Your task to perform on an android device: Set the phone to "Do not disturb". Image 0: 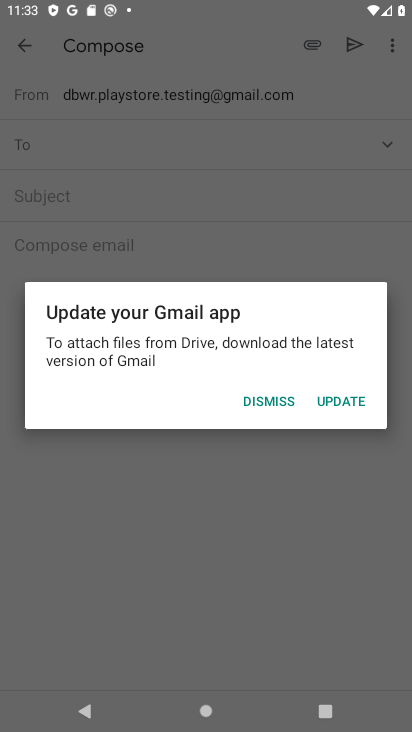
Step 0: press home button
Your task to perform on an android device: Set the phone to "Do not disturb". Image 1: 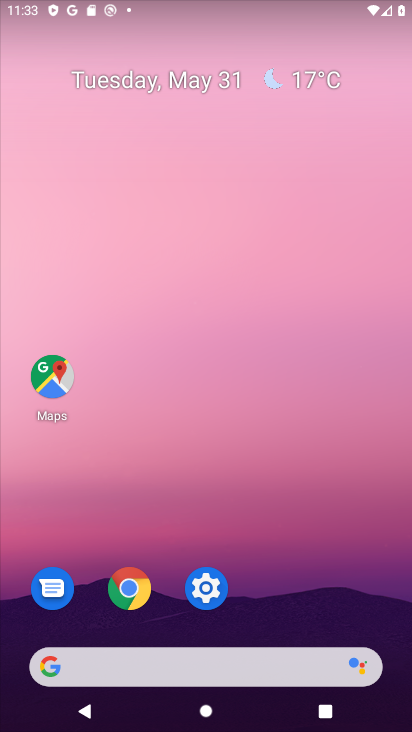
Step 1: click (195, 587)
Your task to perform on an android device: Set the phone to "Do not disturb". Image 2: 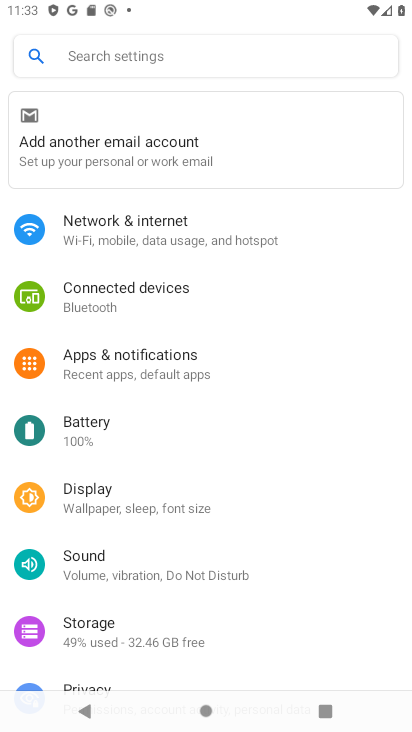
Step 2: click (106, 51)
Your task to perform on an android device: Set the phone to "Do not disturb". Image 3: 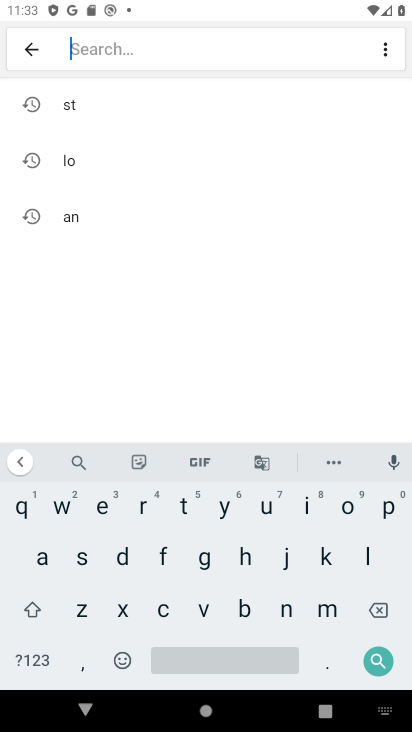
Step 3: click (117, 566)
Your task to perform on an android device: Set the phone to "Do not disturb". Image 4: 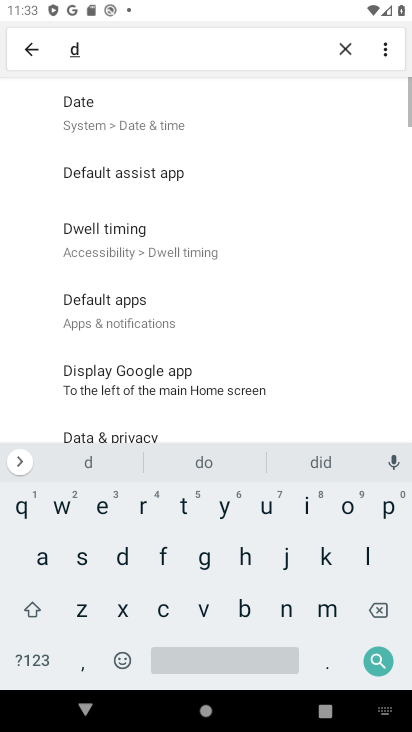
Step 4: click (294, 609)
Your task to perform on an android device: Set the phone to "Do not disturb". Image 5: 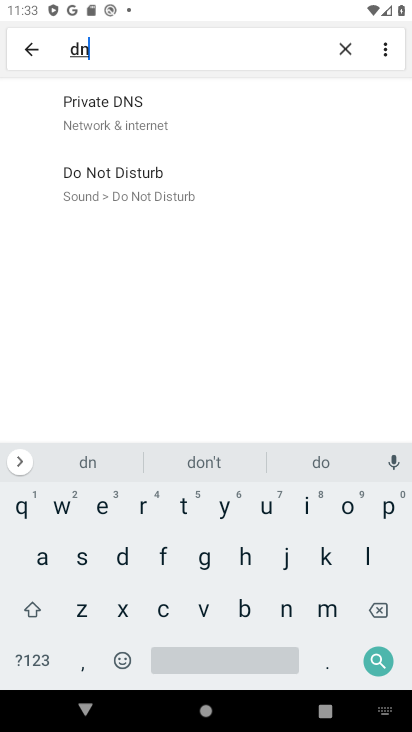
Step 5: click (144, 170)
Your task to perform on an android device: Set the phone to "Do not disturb". Image 6: 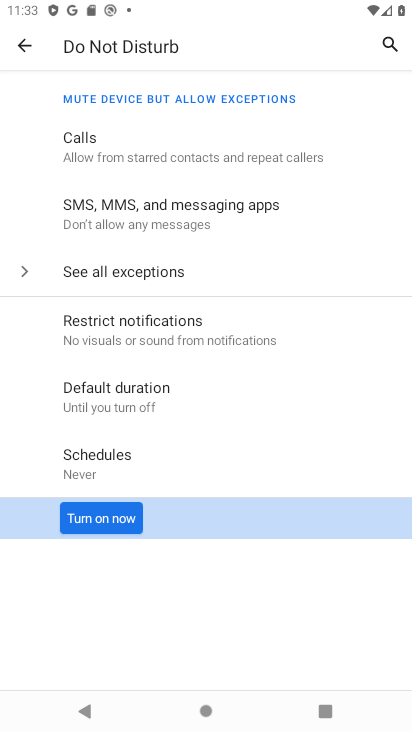
Step 6: task complete